Your task to perform on an android device: What's the weather like in Singapore? Image 0: 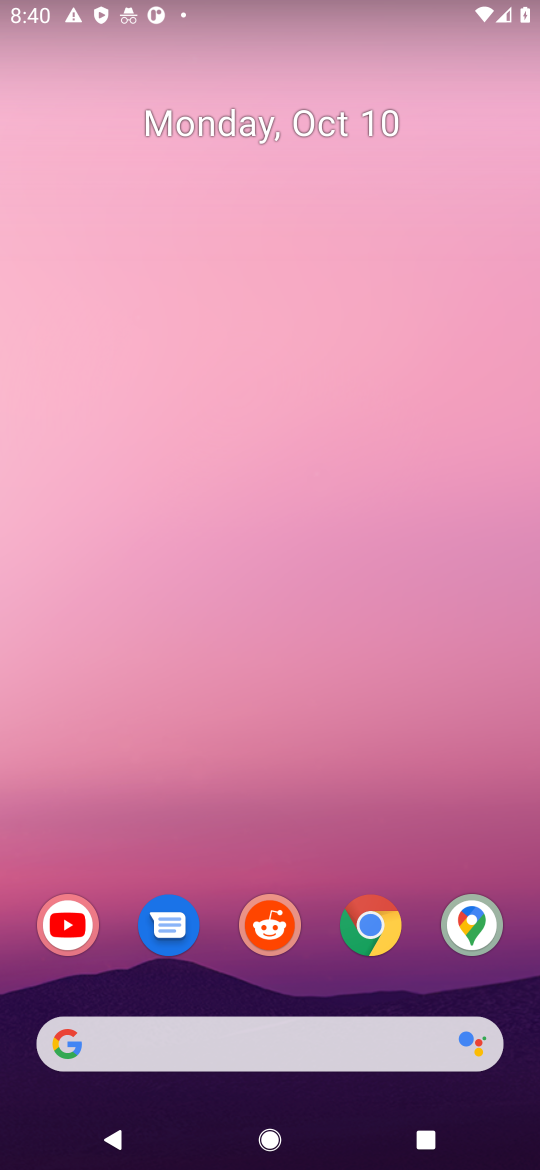
Step 0: drag from (295, 979) to (394, 7)
Your task to perform on an android device: What's the weather like in Singapore? Image 1: 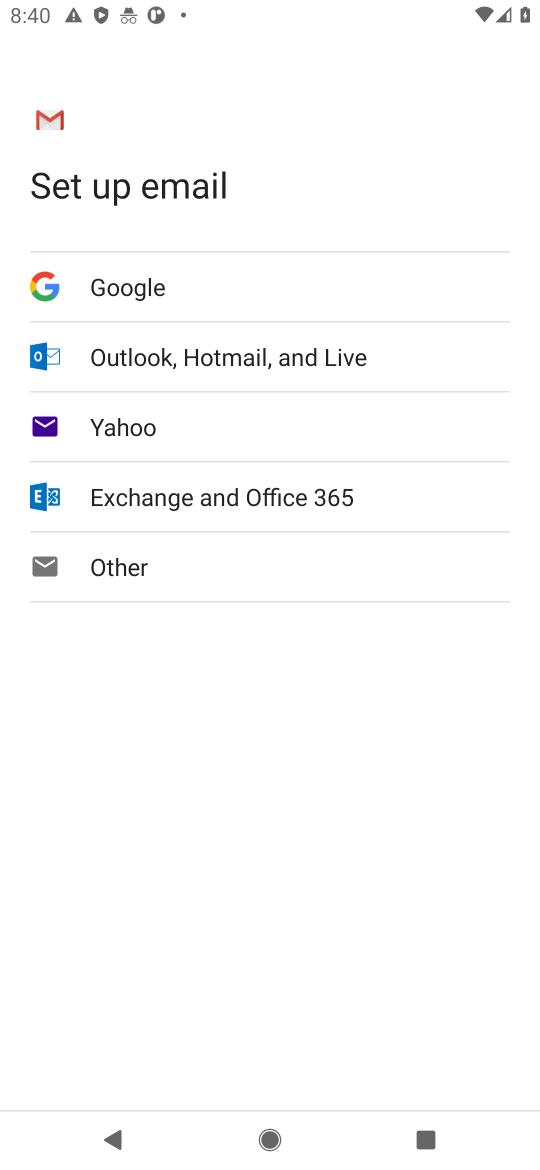
Step 1: press home button
Your task to perform on an android device: What's the weather like in Singapore? Image 2: 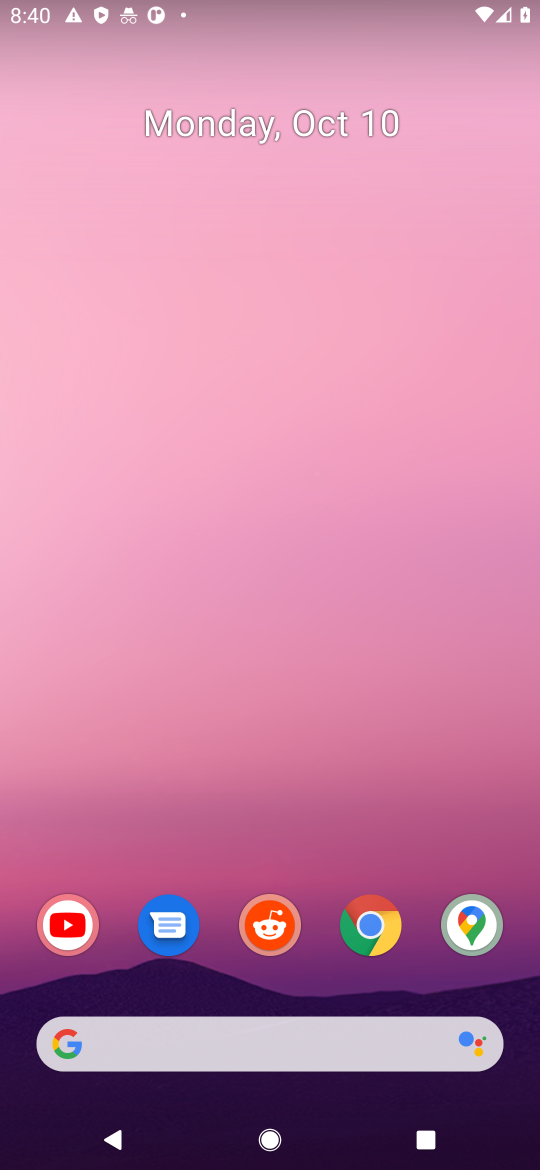
Step 2: drag from (340, 970) to (397, 168)
Your task to perform on an android device: What's the weather like in Singapore? Image 3: 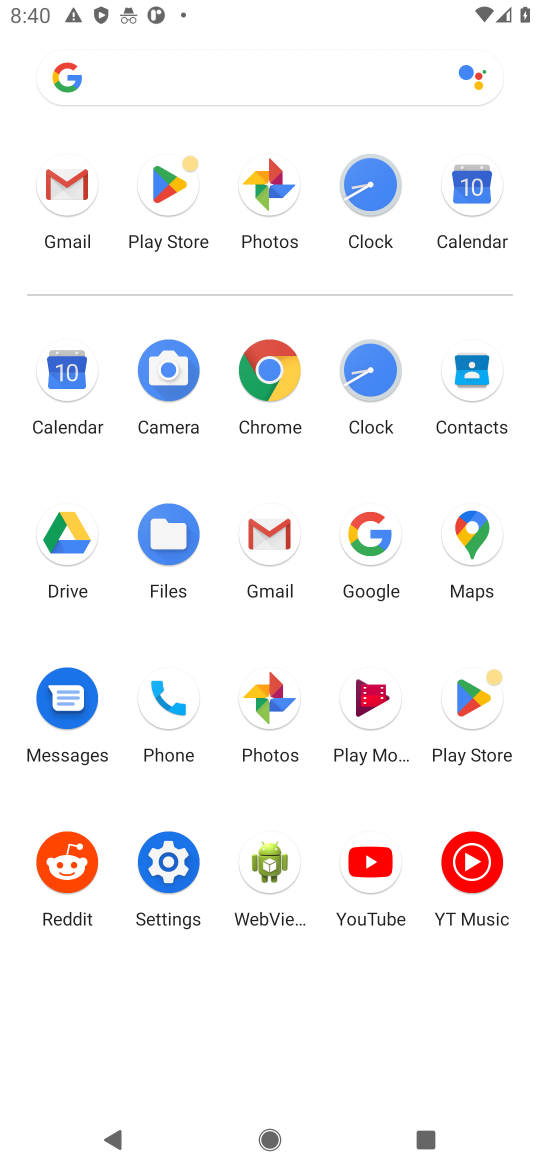
Step 3: click (274, 372)
Your task to perform on an android device: What's the weather like in Singapore? Image 4: 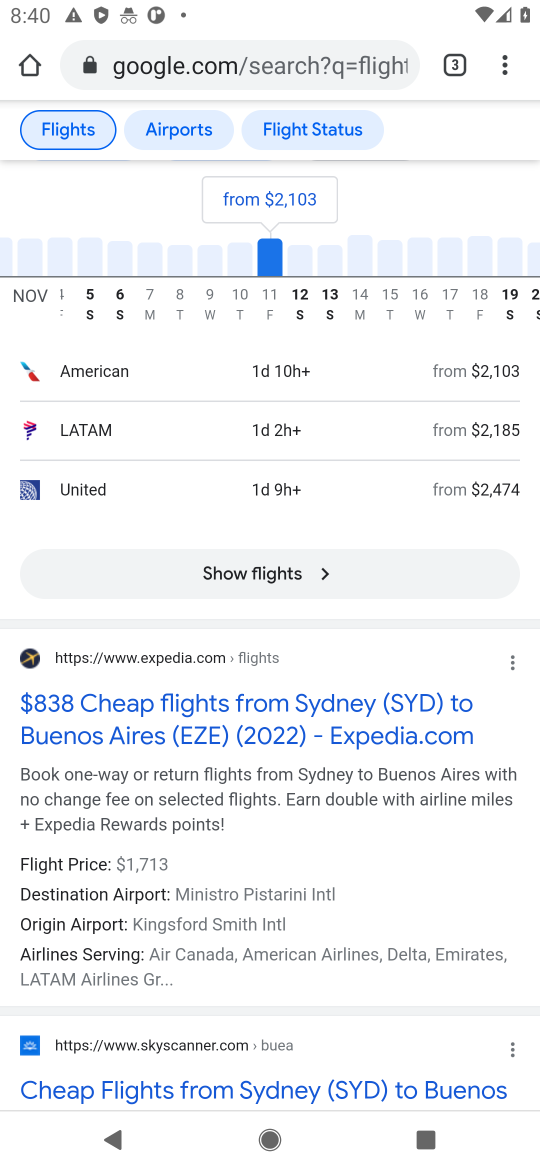
Step 4: click (282, 68)
Your task to perform on an android device: What's the weather like in Singapore? Image 5: 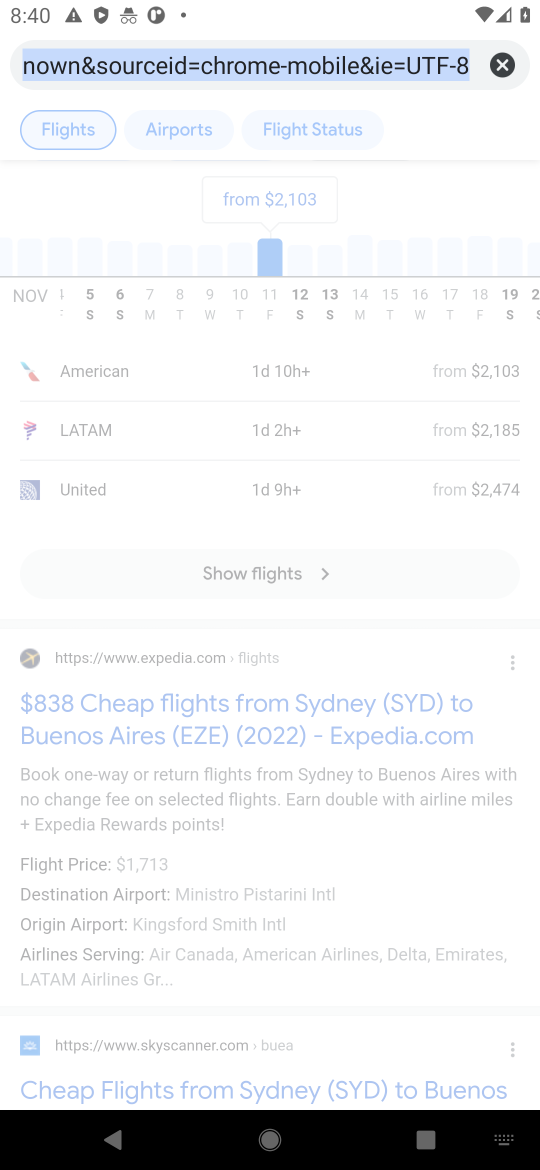
Step 5: type "What's the weather like in Singapore?"
Your task to perform on an android device: What's the weather like in Singapore? Image 6: 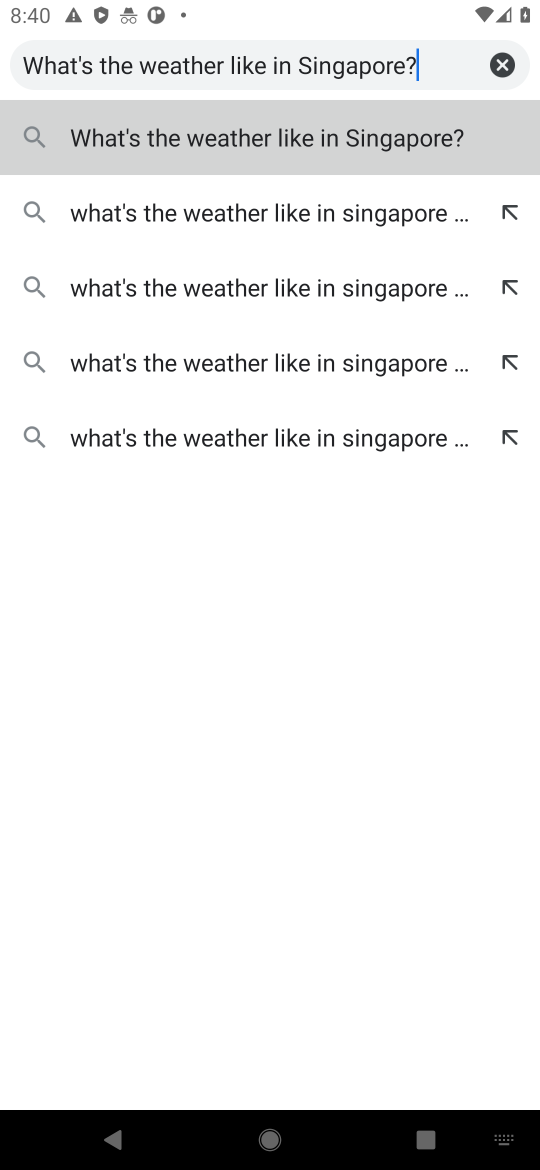
Step 6: press enter
Your task to perform on an android device: What's the weather like in Singapore? Image 7: 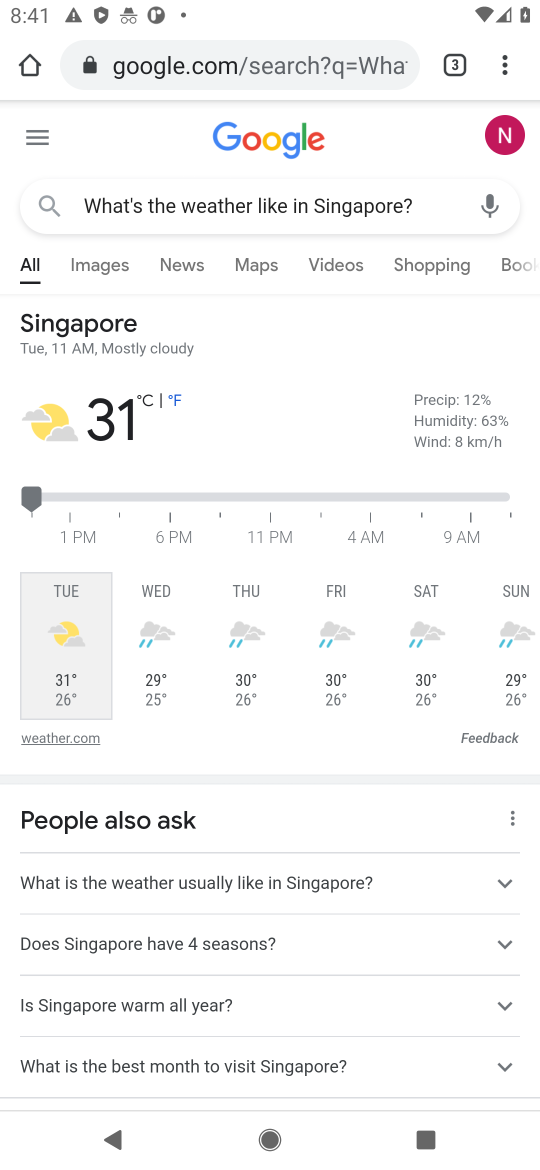
Step 7: task complete